Your task to perform on an android device: Search for Italian restaurants on Maps Image 0: 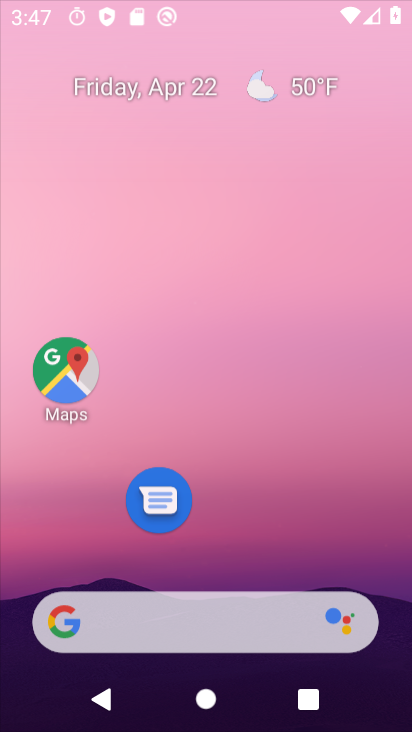
Step 0: drag from (274, 211) to (284, 94)
Your task to perform on an android device: Search for Italian restaurants on Maps Image 1: 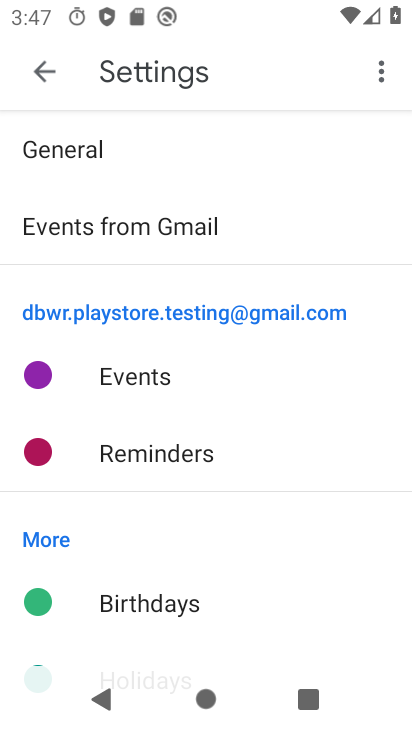
Step 1: press home button
Your task to perform on an android device: Search for Italian restaurants on Maps Image 2: 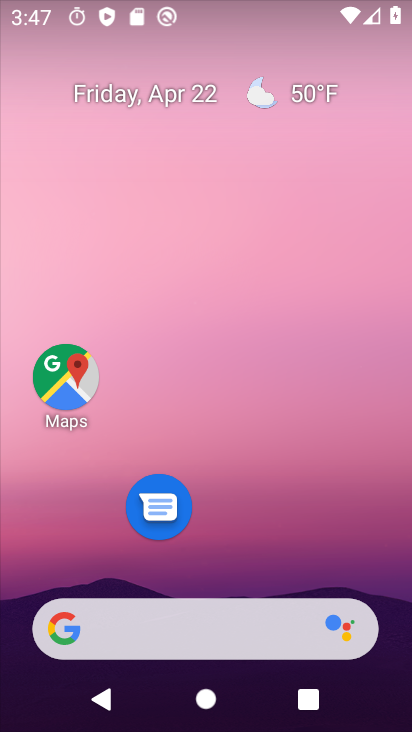
Step 2: click (63, 386)
Your task to perform on an android device: Search for Italian restaurants on Maps Image 3: 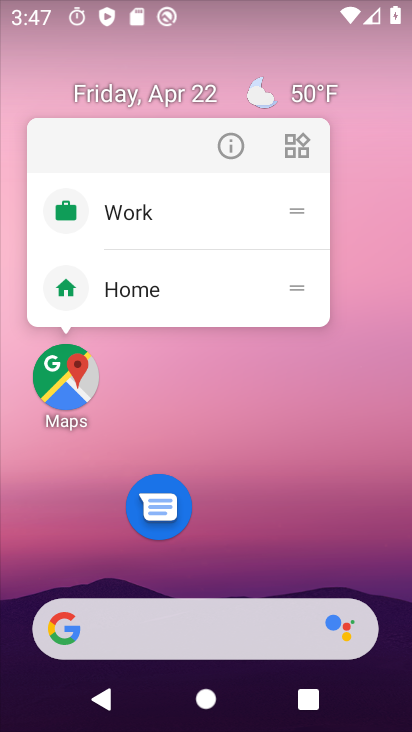
Step 3: click (66, 380)
Your task to perform on an android device: Search for Italian restaurants on Maps Image 4: 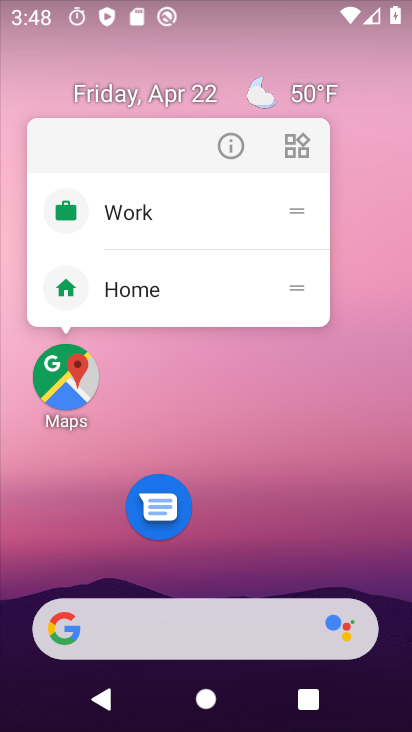
Step 4: click (68, 374)
Your task to perform on an android device: Search for Italian restaurants on Maps Image 5: 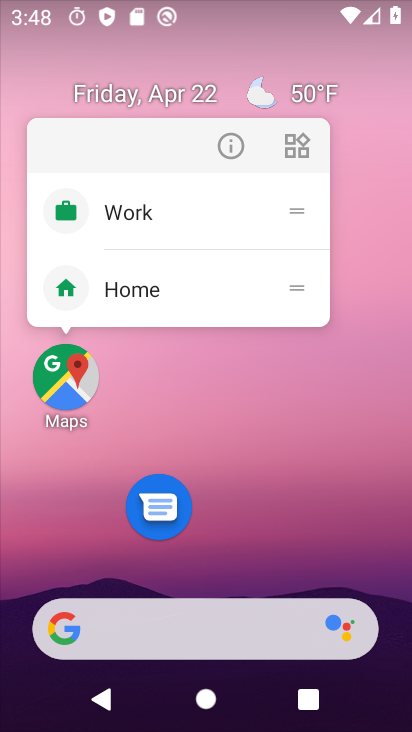
Step 5: click (55, 389)
Your task to perform on an android device: Search for Italian restaurants on Maps Image 6: 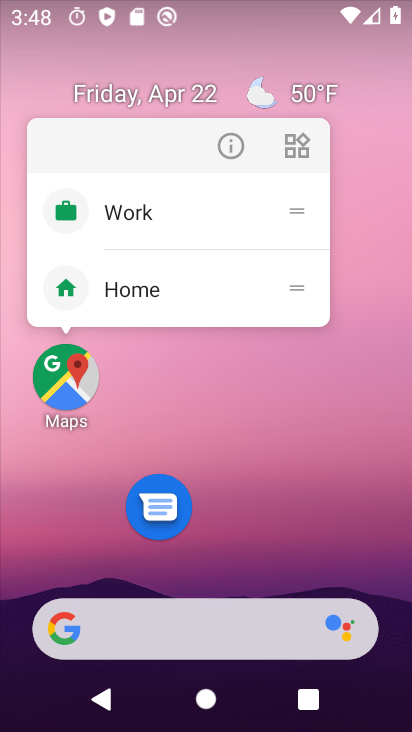
Step 6: click (76, 368)
Your task to perform on an android device: Search for Italian restaurants on Maps Image 7: 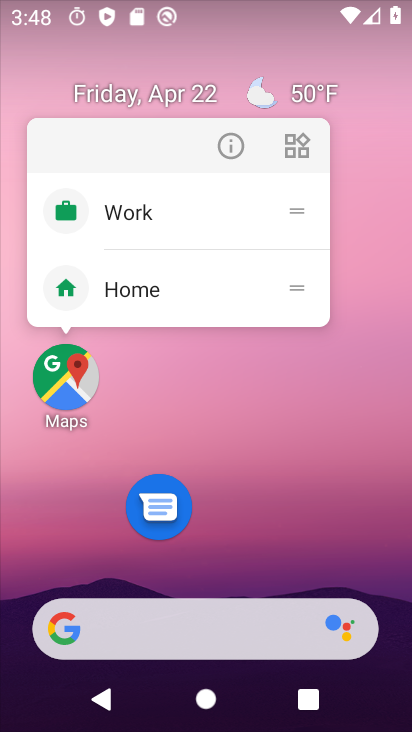
Step 7: click (75, 376)
Your task to perform on an android device: Search for Italian restaurants on Maps Image 8: 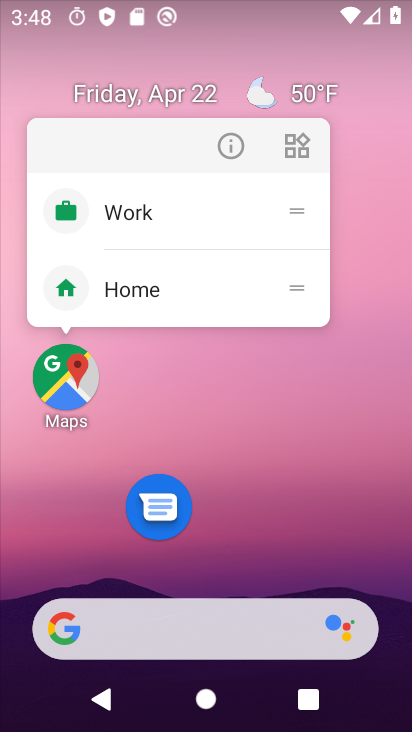
Step 8: click (72, 377)
Your task to perform on an android device: Search for Italian restaurants on Maps Image 9: 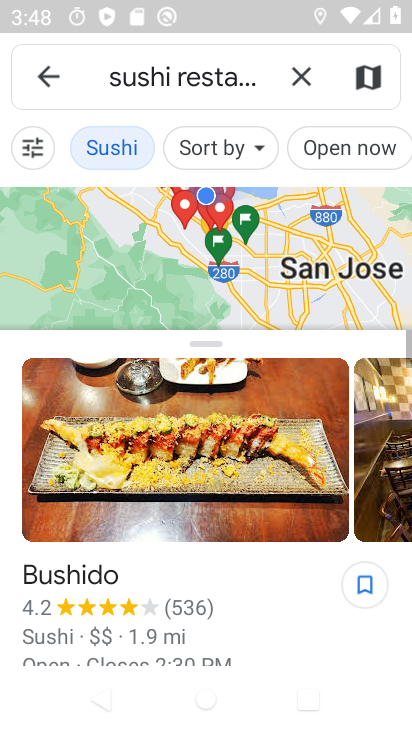
Step 9: click (284, 80)
Your task to perform on an android device: Search for Italian restaurants on Maps Image 10: 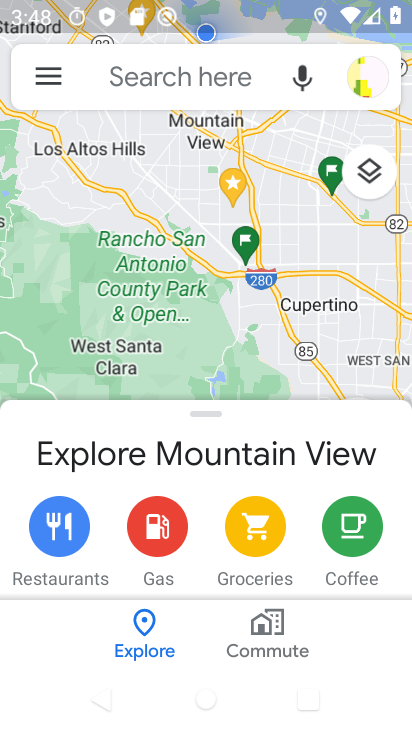
Step 10: click (180, 81)
Your task to perform on an android device: Search for Italian restaurants on Maps Image 11: 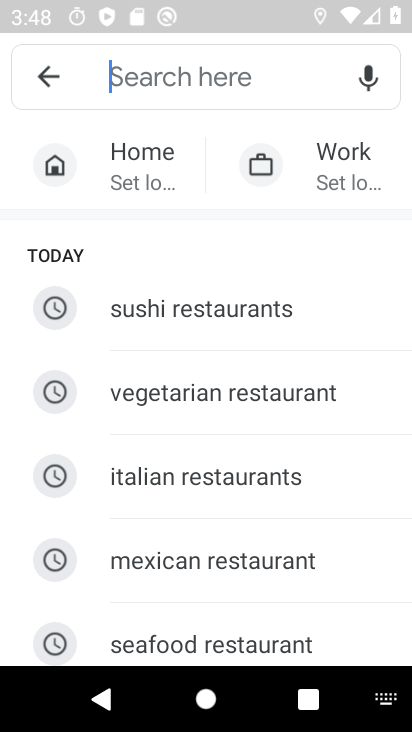
Step 11: click (190, 484)
Your task to perform on an android device: Search for Italian restaurants on Maps Image 12: 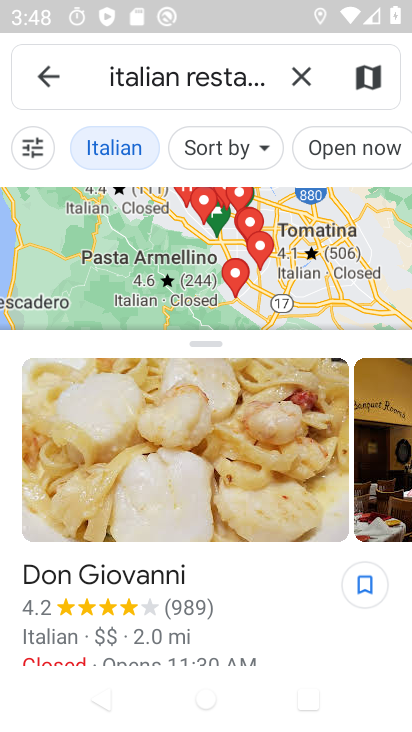
Step 12: task complete